Your task to perform on an android device: Open Amazon Image 0: 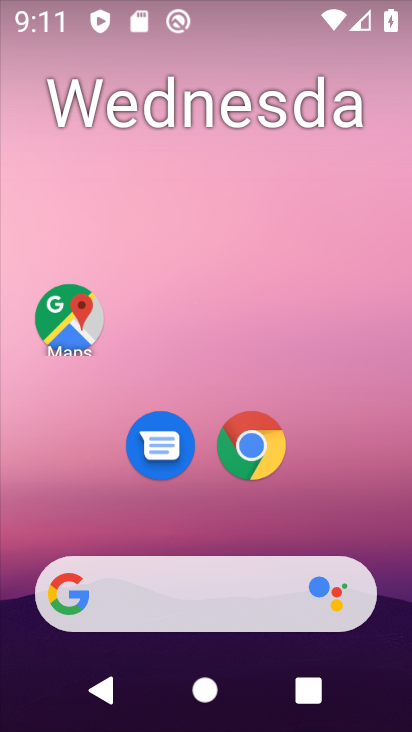
Step 0: click (243, 440)
Your task to perform on an android device: Open Amazon Image 1: 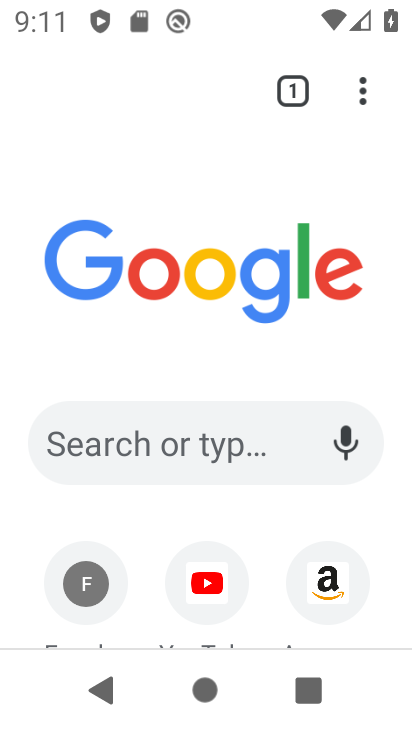
Step 1: drag from (191, 571) to (243, 221)
Your task to perform on an android device: Open Amazon Image 2: 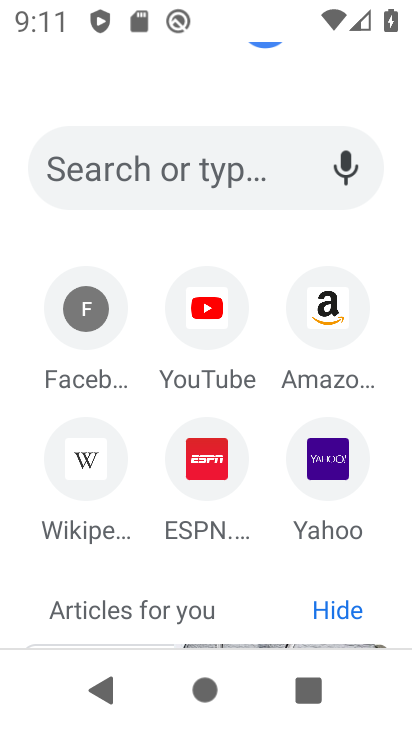
Step 2: click (325, 318)
Your task to perform on an android device: Open Amazon Image 3: 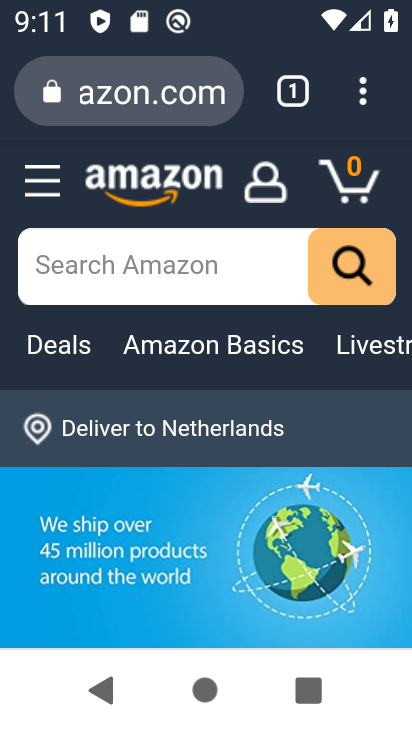
Step 3: task complete